Your task to perform on an android device: What's on my calendar today? Image 0: 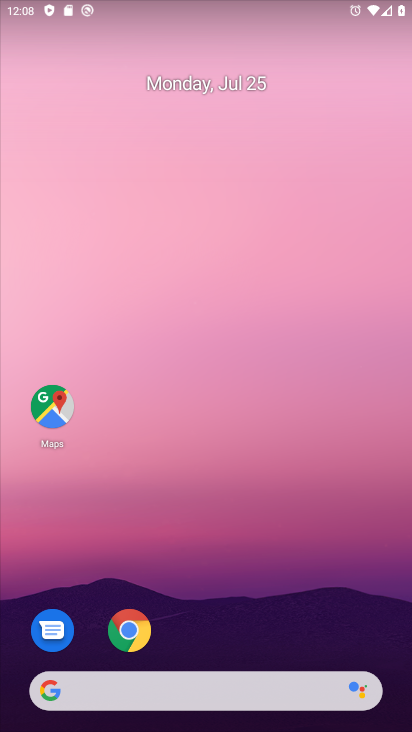
Step 0: drag from (205, 428) to (150, 124)
Your task to perform on an android device: What's on my calendar today? Image 1: 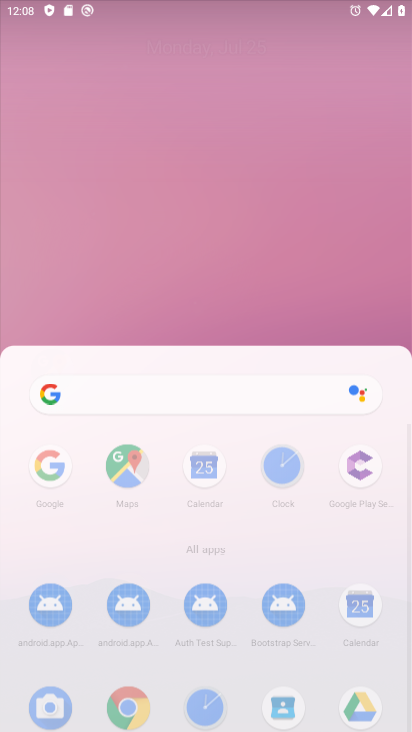
Step 1: drag from (178, 185) to (255, 40)
Your task to perform on an android device: What's on my calendar today? Image 2: 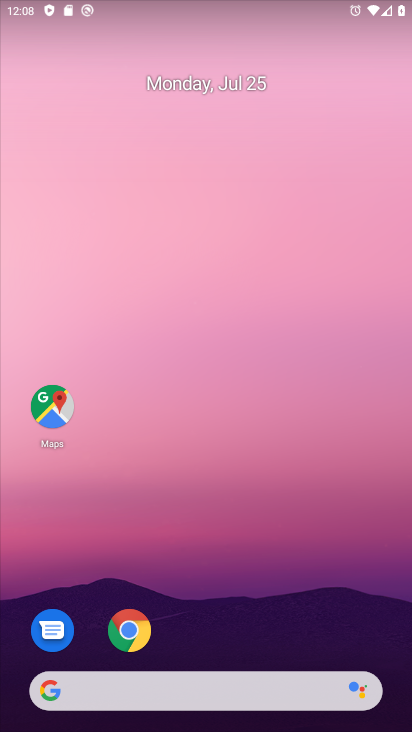
Step 2: drag from (246, 478) to (239, 3)
Your task to perform on an android device: What's on my calendar today? Image 3: 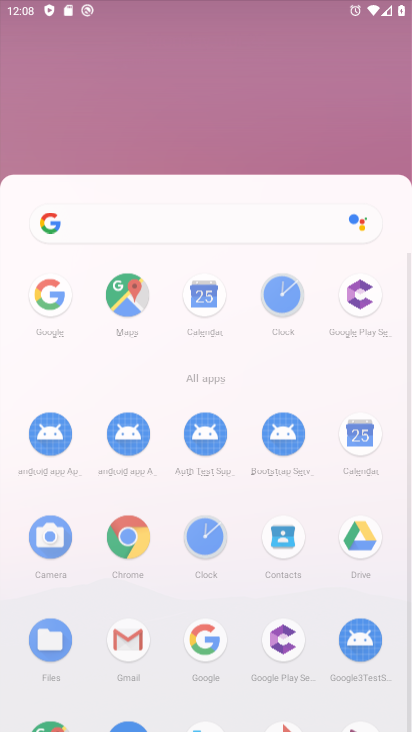
Step 3: drag from (260, 531) to (251, 95)
Your task to perform on an android device: What's on my calendar today? Image 4: 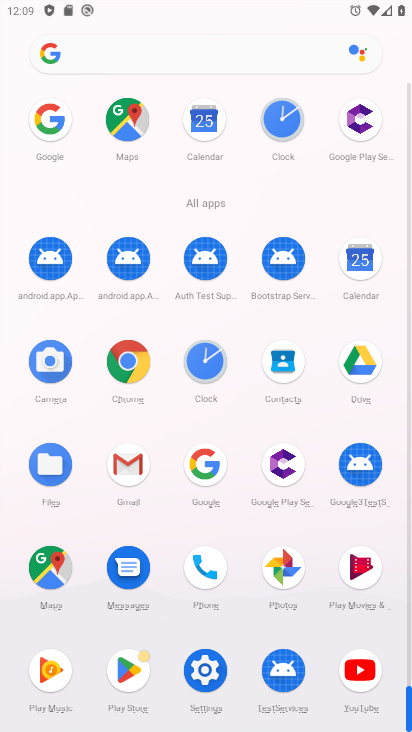
Step 4: click (359, 261)
Your task to perform on an android device: What's on my calendar today? Image 5: 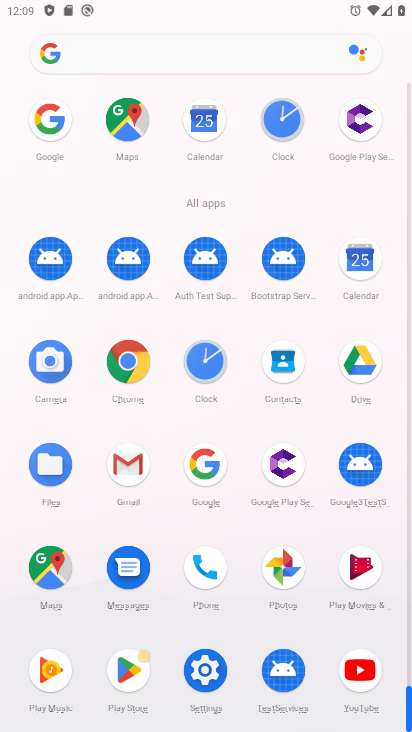
Step 5: click (358, 261)
Your task to perform on an android device: What's on my calendar today? Image 6: 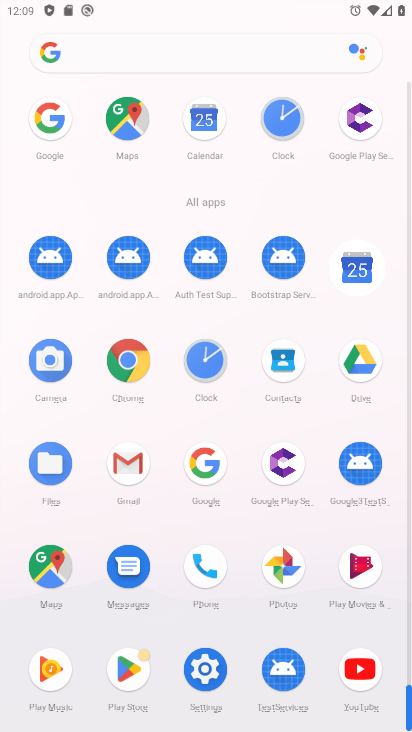
Step 6: click (357, 260)
Your task to perform on an android device: What's on my calendar today? Image 7: 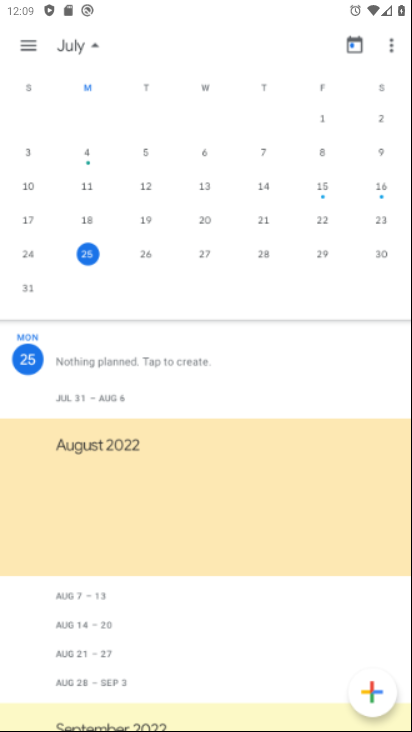
Step 7: click (355, 257)
Your task to perform on an android device: What's on my calendar today? Image 8: 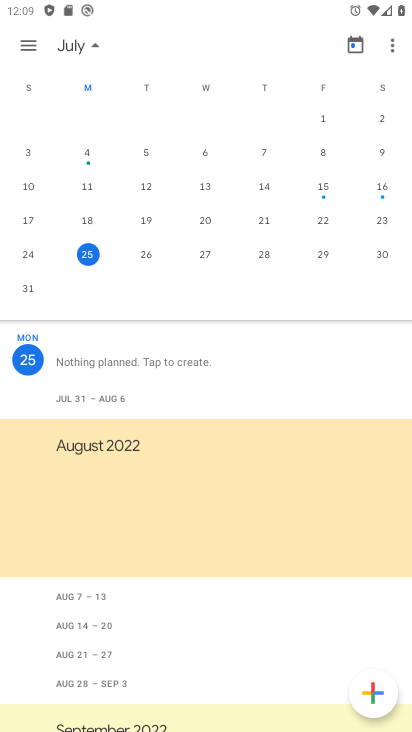
Step 8: click (75, 245)
Your task to perform on an android device: What's on my calendar today? Image 9: 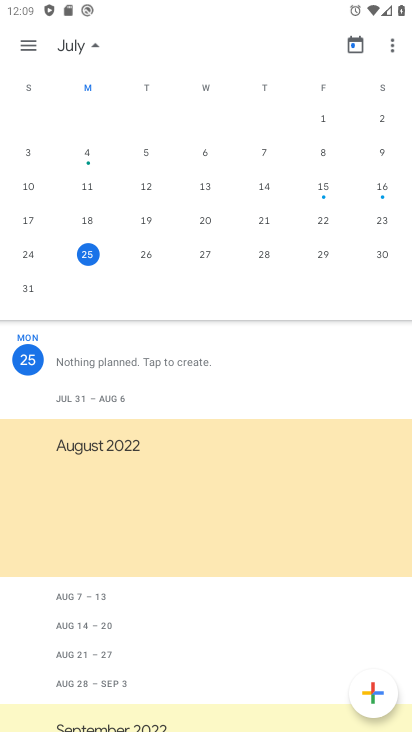
Step 9: task complete